Your task to perform on an android device: all mails in gmail Image 0: 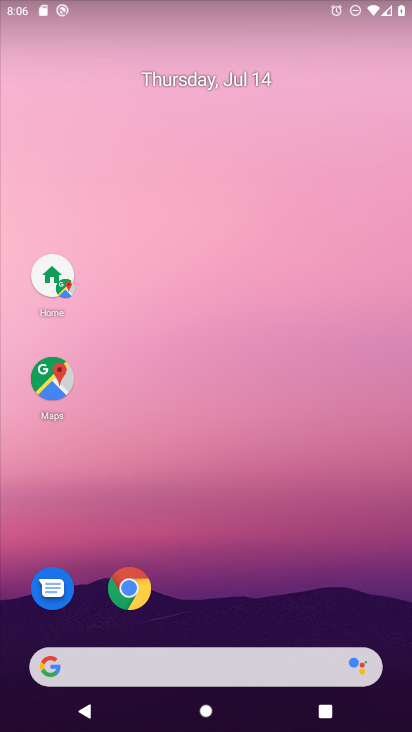
Step 0: drag from (23, 670) to (258, 33)
Your task to perform on an android device: all mails in gmail Image 1: 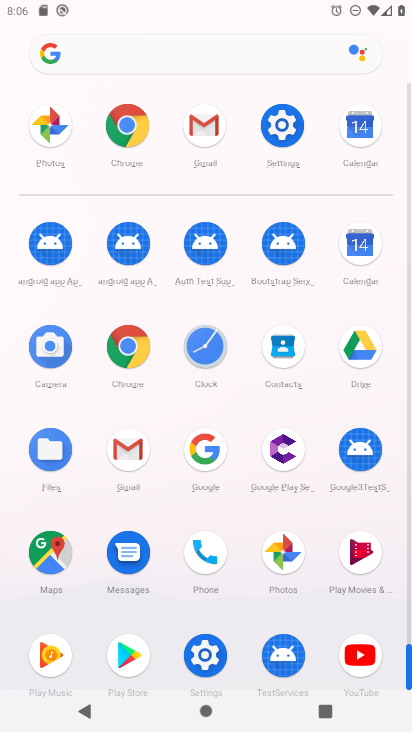
Step 1: click (125, 445)
Your task to perform on an android device: all mails in gmail Image 2: 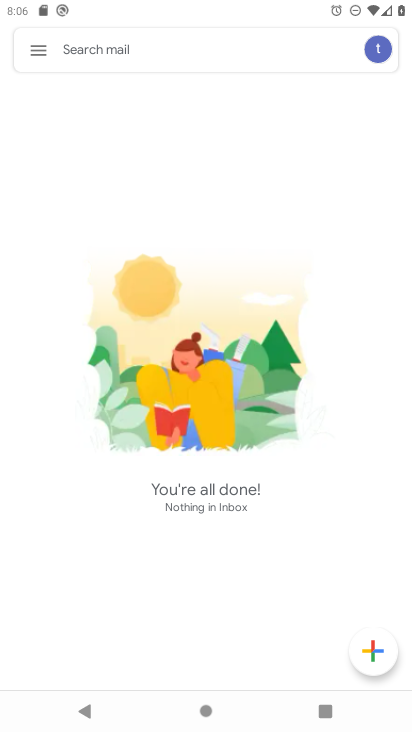
Step 2: click (31, 53)
Your task to perform on an android device: all mails in gmail Image 3: 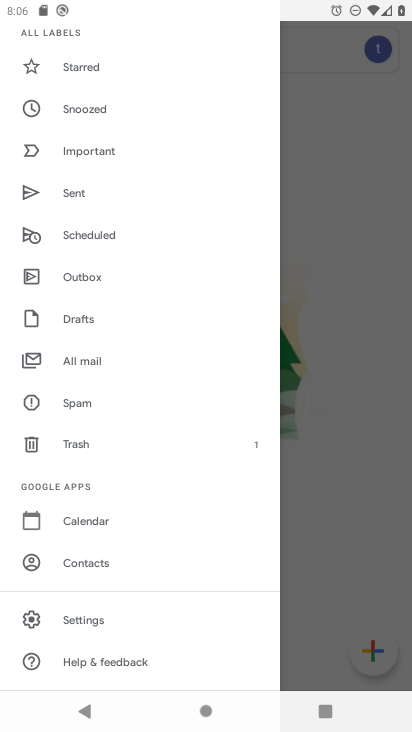
Step 3: click (88, 370)
Your task to perform on an android device: all mails in gmail Image 4: 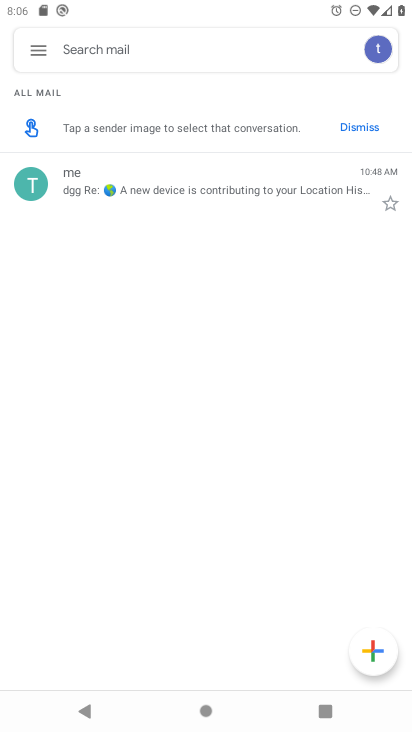
Step 4: task complete